Your task to perform on an android device: turn pop-ups on in chrome Image 0: 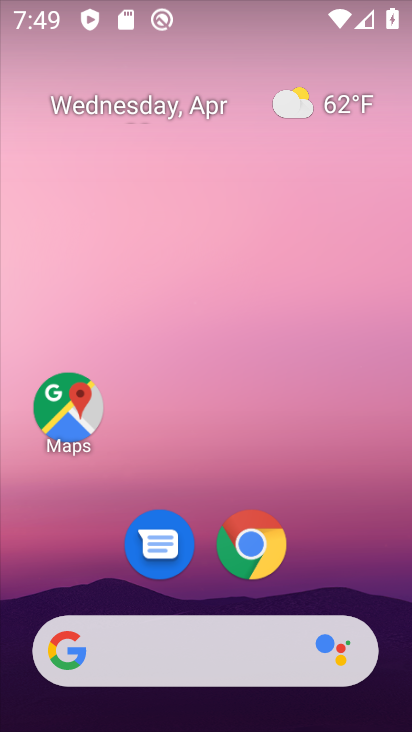
Step 0: click (265, 535)
Your task to perform on an android device: turn pop-ups on in chrome Image 1: 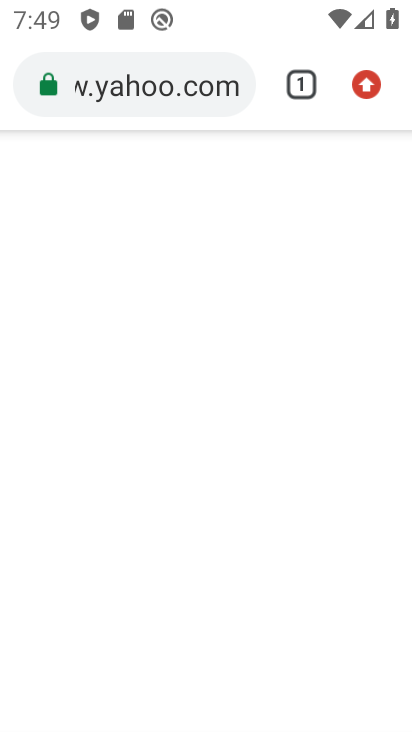
Step 1: drag from (364, 84) to (139, 592)
Your task to perform on an android device: turn pop-ups on in chrome Image 2: 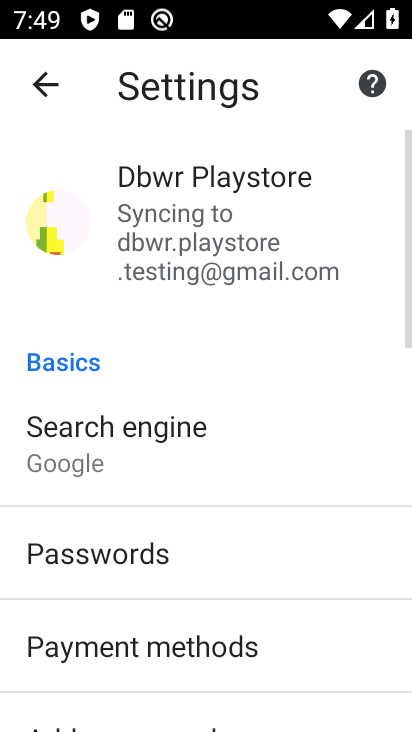
Step 2: drag from (291, 620) to (239, 175)
Your task to perform on an android device: turn pop-ups on in chrome Image 3: 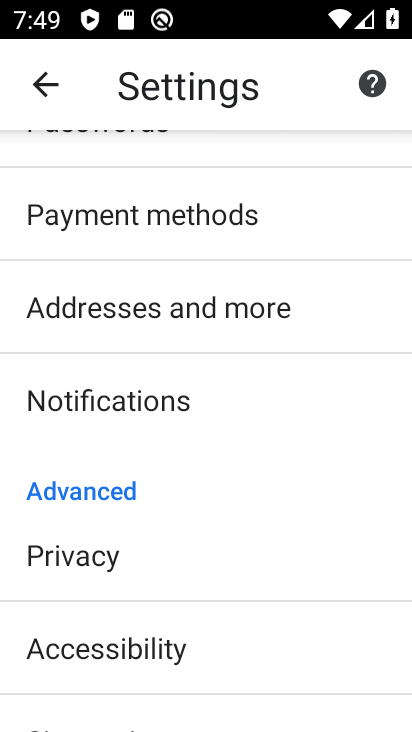
Step 3: drag from (274, 626) to (275, 402)
Your task to perform on an android device: turn pop-ups on in chrome Image 4: 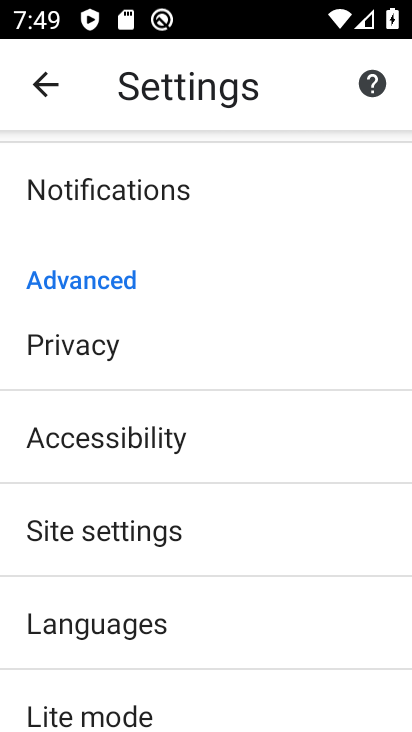
Step 4: click (89, 538)
Your task to perform on an android device: turn pop-ups on in chrome Image 5: 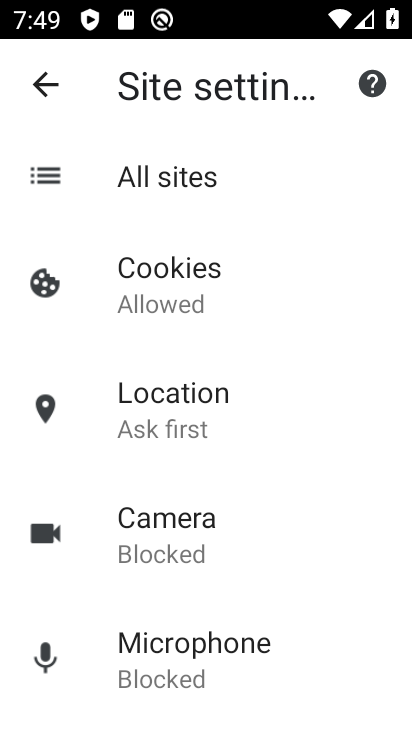
Step 5: drag from (236, 693) to (228, 305)
Your task to perform on an android device: turn pop-ups on in chrome Image 6: 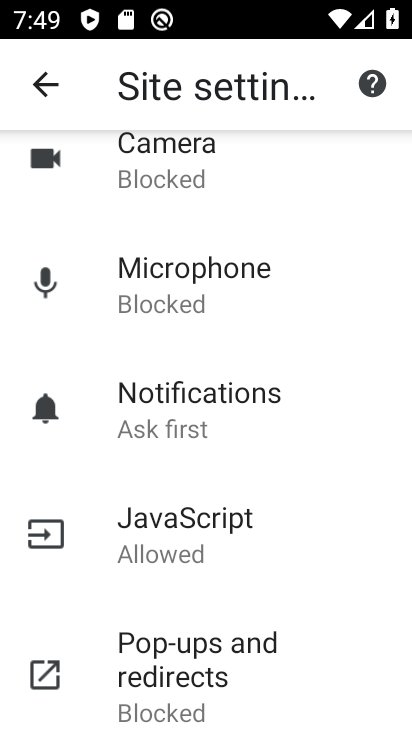
Step 6: click (162, 661)
Your task to perform on an android device: turn pop-ups on in chrome Image 7: 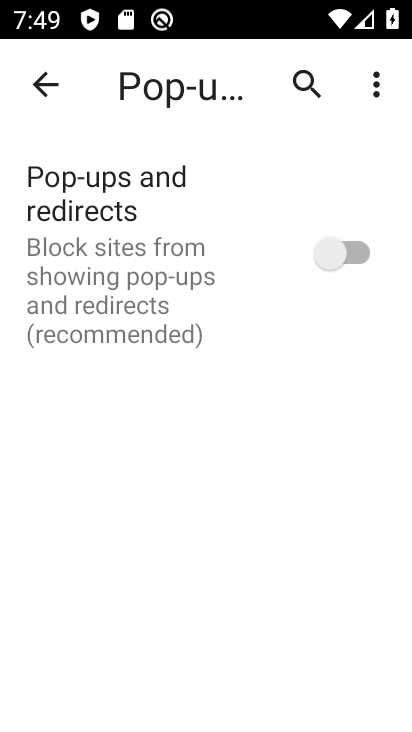
Step 7: click (339, 265)
Your task to perform on an android device: turn pop-ups on in chrome Image 8: 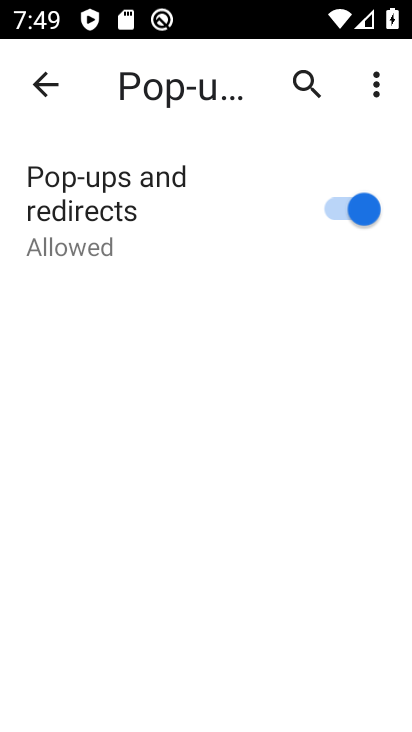
Step 8: task complete